Your task to perform on an android device: toggle airplane mode Image 0: 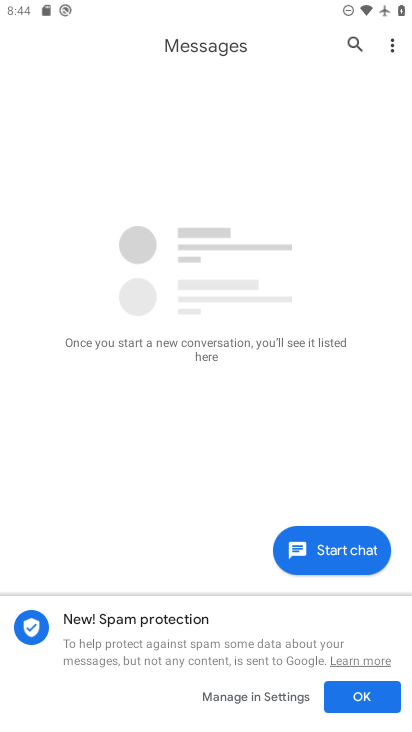
Step 0: press home button
Your task to perform on an android device: toggle airplane mode Image 1: 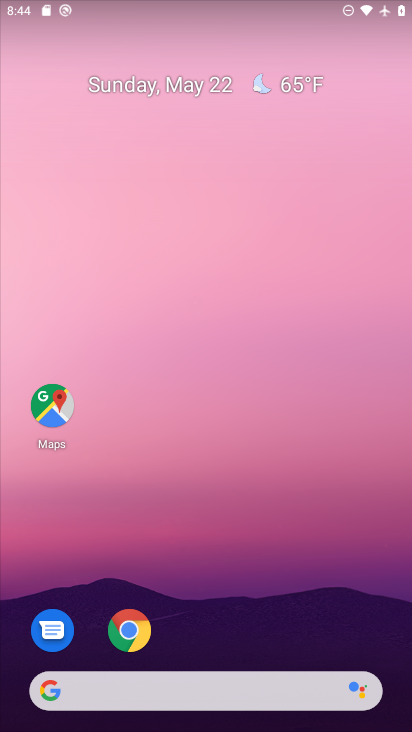
Step 1: drag from (152, 698) to (338, 62)
Your task to perform on an android device: toggle airplane mode Image 2: 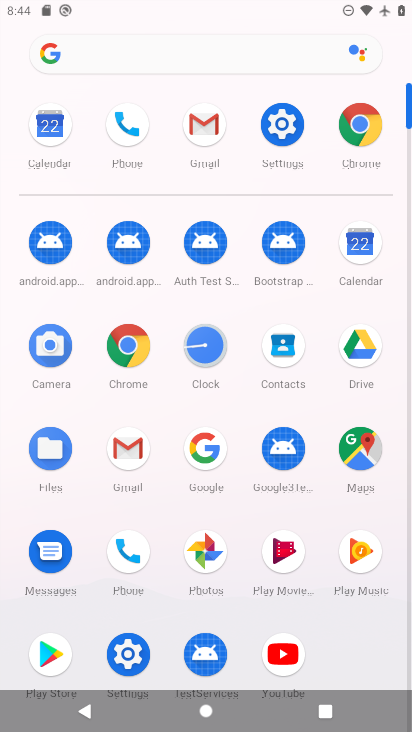
Step 2: click (283, 124)
Your task to perform on an android device: toggle airplane mode Image 3: 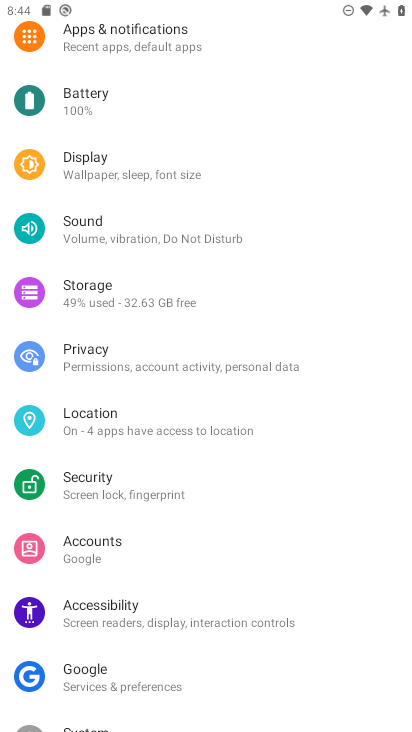
Step 3: drag from (310, 92) to (214, 418)
Your task to perform on an android device: toggle airplane mode Image 4: 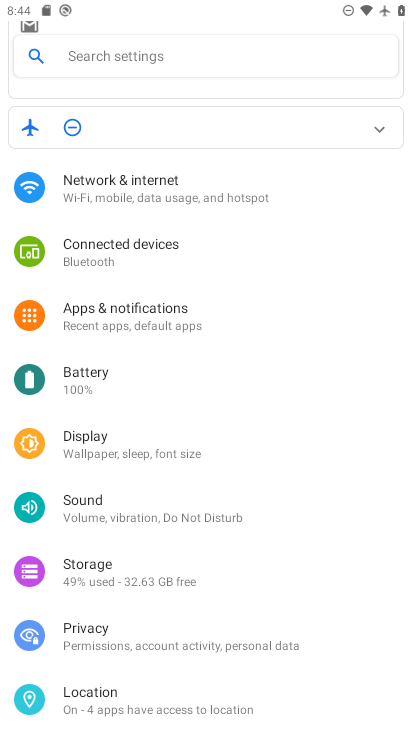
Step 4: click (200, 188)
Your task to perform on an android device: toggle airplane mode Image 5: 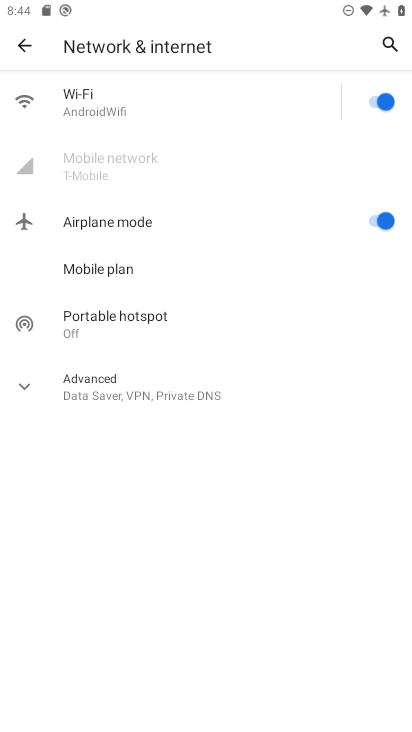
Step 5: click (377, 222)
Your task to perform on an android device: toggle airplane mode Image 6: 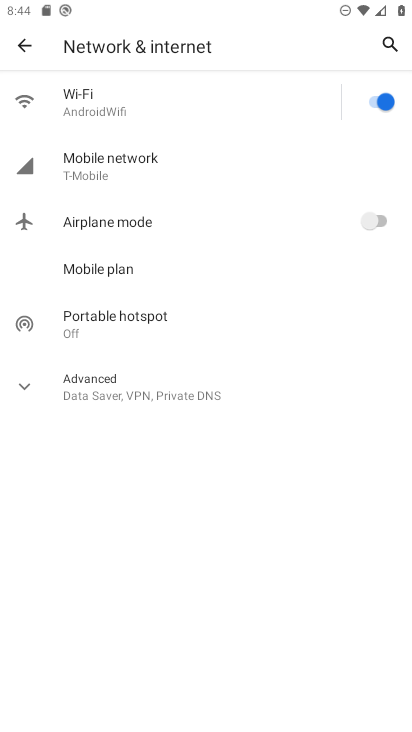
Step 6: task complete